Your task to perform on an android device: Go to network settings Image 0: 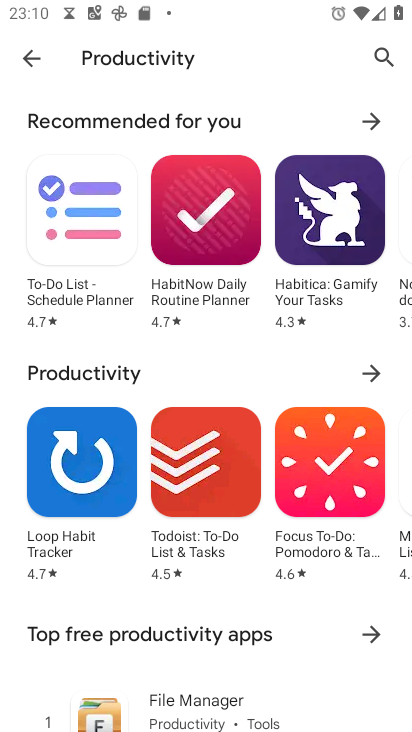
Step 0: press home button
Your task to perform on an android device: Go to network settings Image 1: 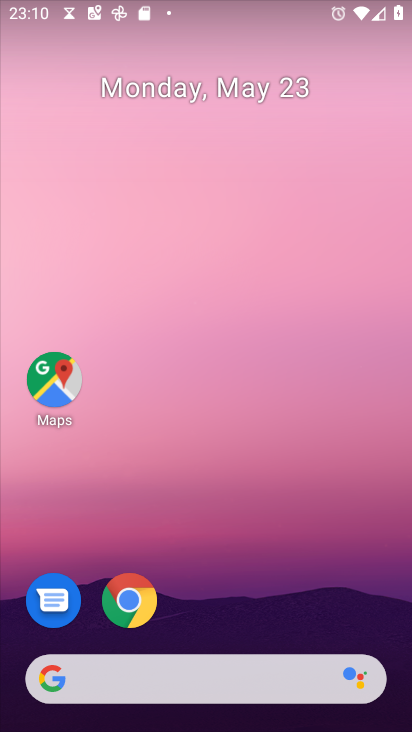
Step 1: drag from (219, 728) to (218, 116)
Your task to perform on an android device: Go to network settings Image 2: 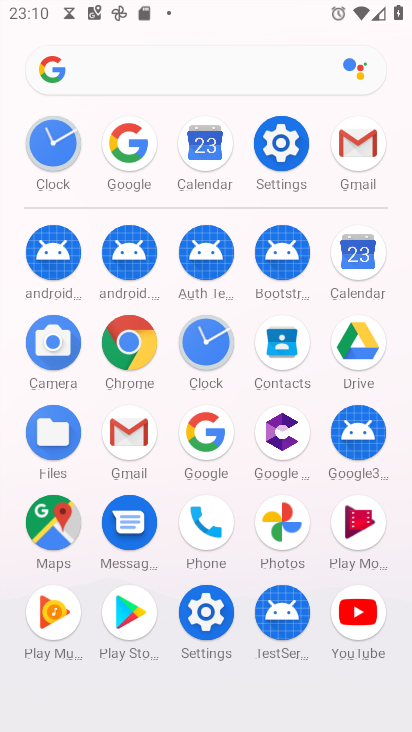
Step 2: click (281, 141)
Your task to perform on an android device: Go to network settings Image 3: 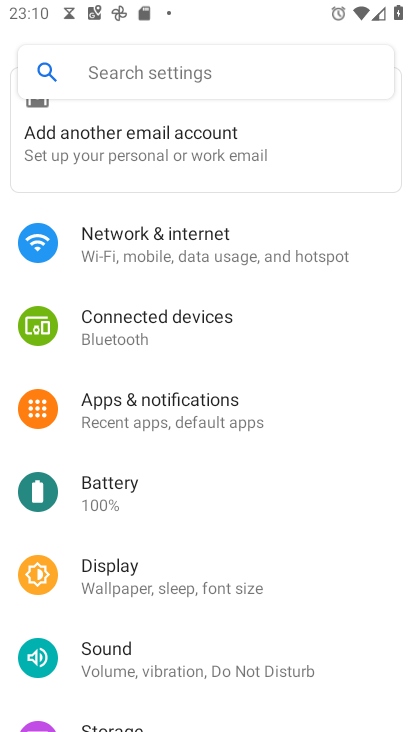
Step 3: click (145, 235)
Your task to perform on an android device: Go to network settings Image 4: 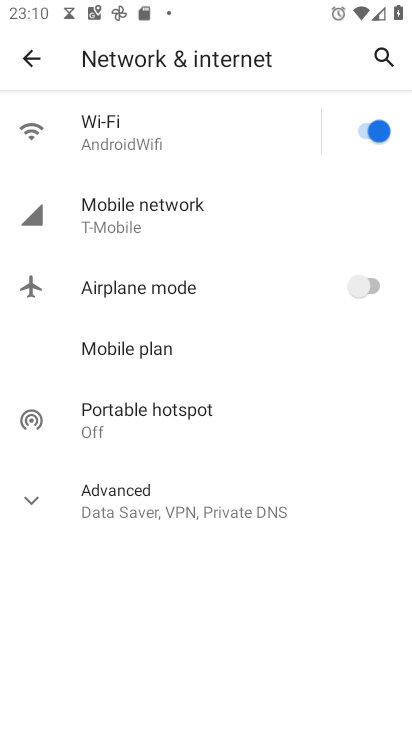
Step 4: click (120, 221)
Your task to perform on an android device: Go to network settings Image 5: 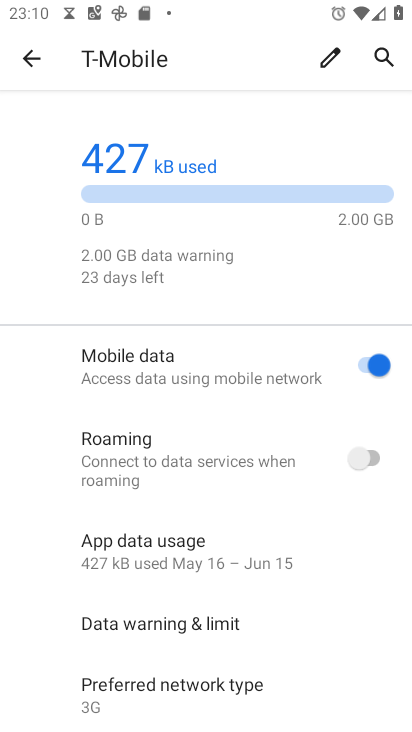
Step 5: task complete